Your task to perform on an android device: Open Chrome and go to settings Image 0: 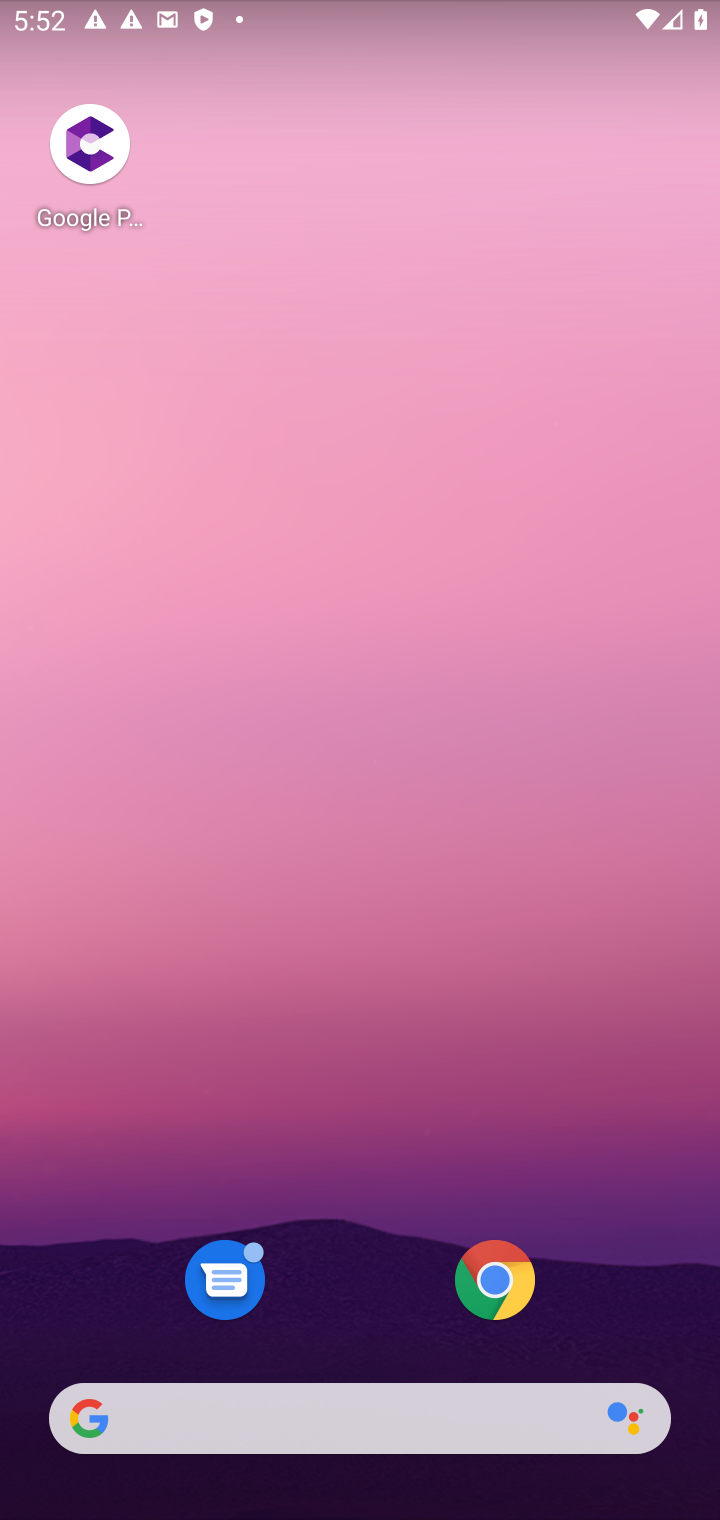
Step 0: click (505, 1296)
Your task to perform on an android device: Open Chrome and go to settings Image 1: 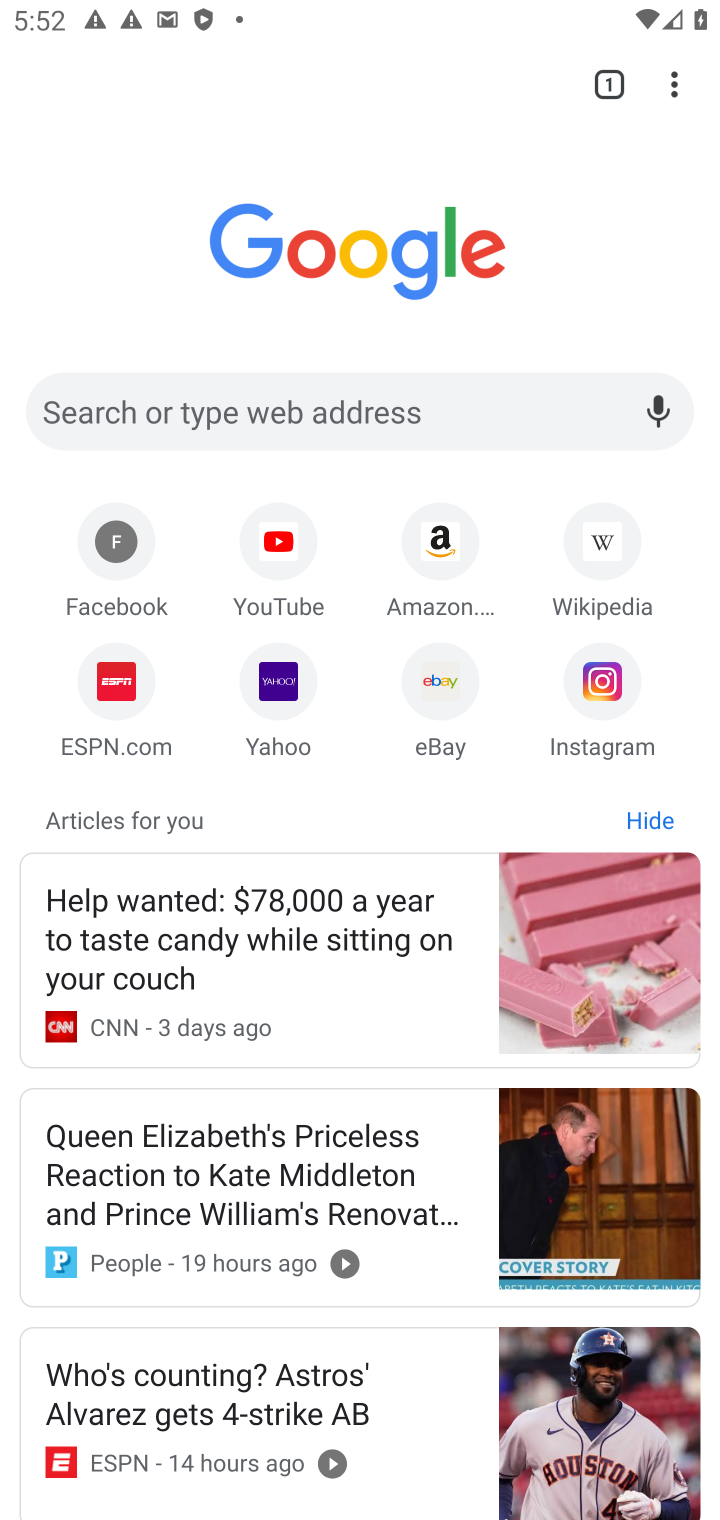
Step 1: click (668, 78)
Your task to perform on an android device: Open Chrome and go to settings Image 2: 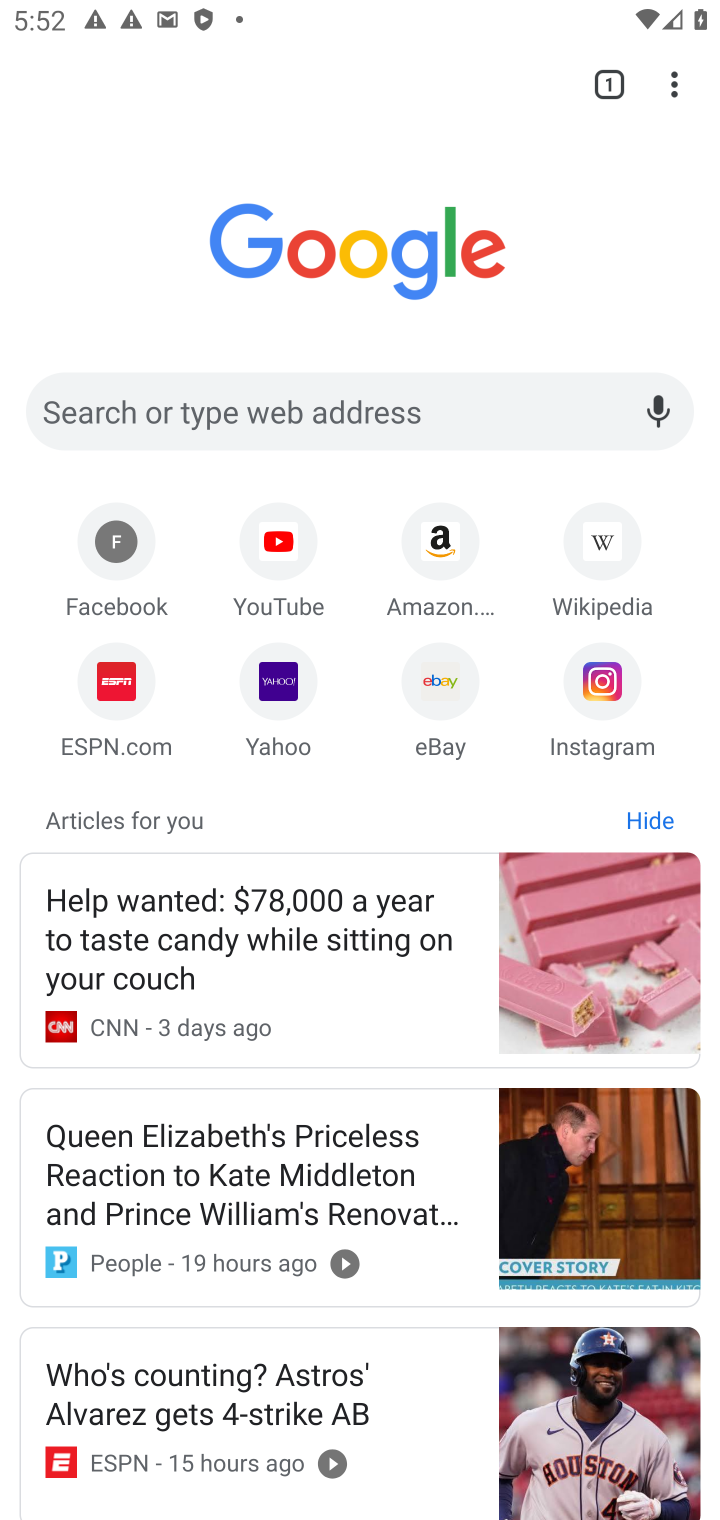
Step 2: click (679, 78)
Your task to perform on an android device: Open Chrome and go to settings Image 3: 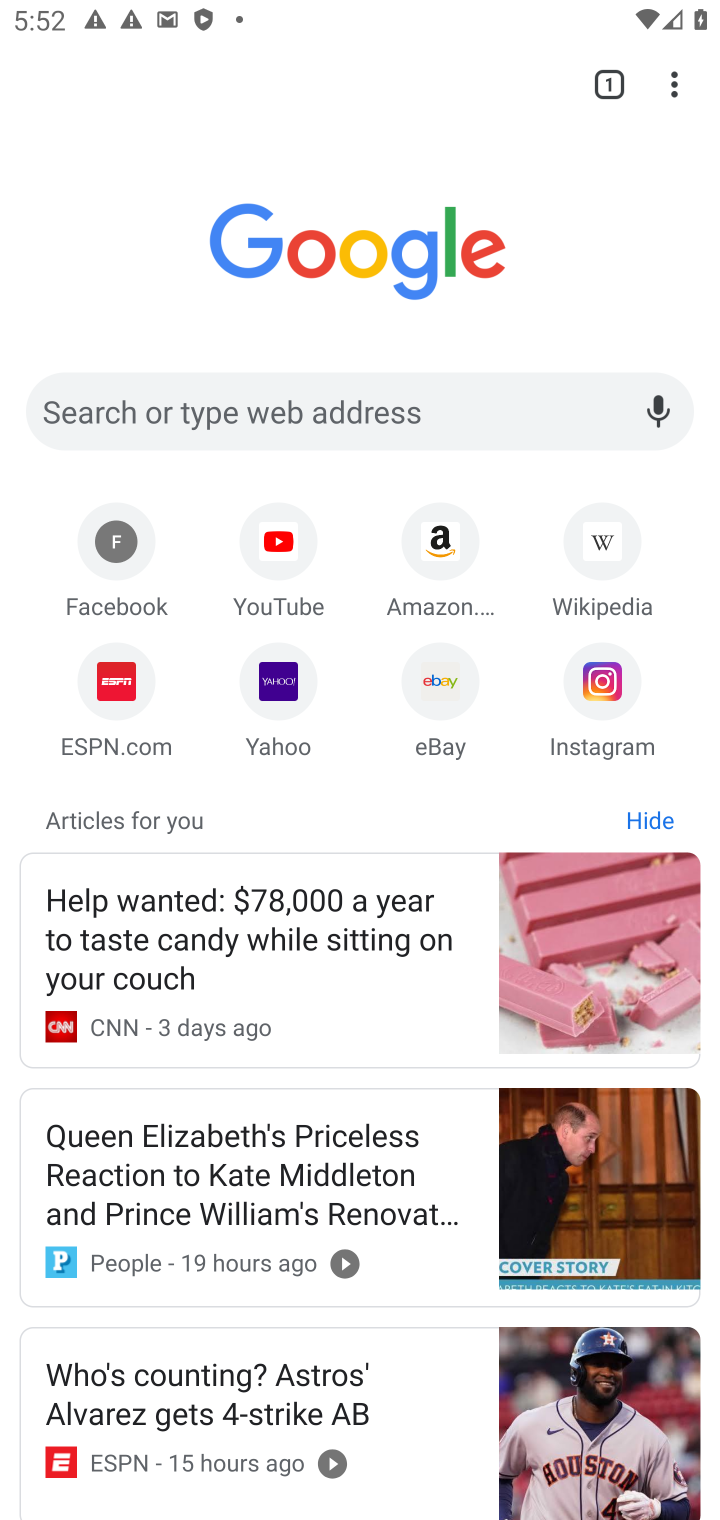
Step 3: click (679, 78)
Your task to perform on an android device: Open Chrome and go to settings Image 4: 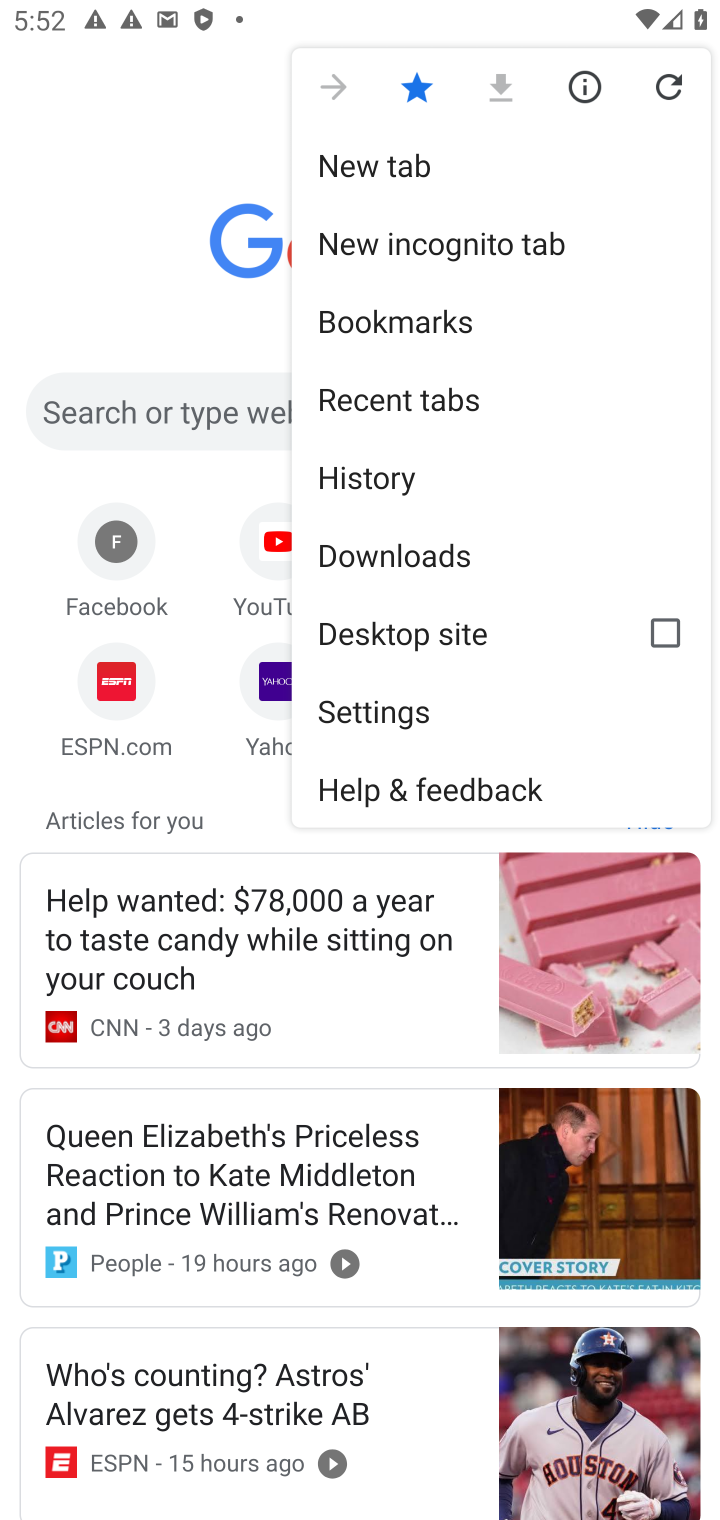
Step 4: click (377, 708)
Your task to perform on an android device: Open Chrome and go to settings Image 5: 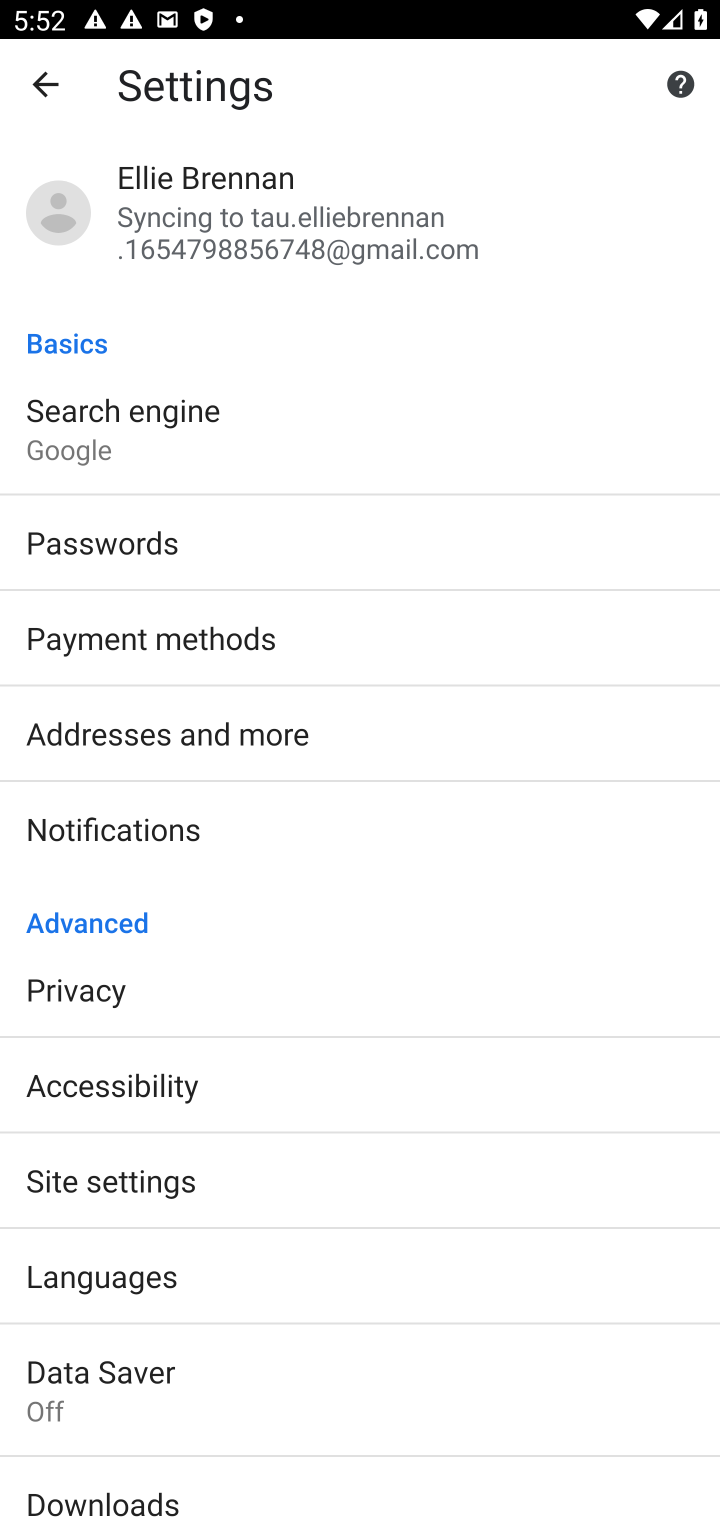
Step 5: task complete